Your task to perform on an android device: When is my next meeting? Image 0: 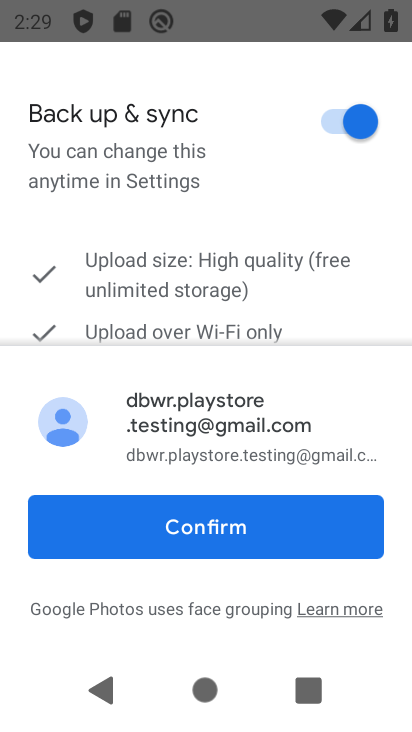
Step 0: press back button
Your task to perform on an android device: When is my next meeting? Image 1: 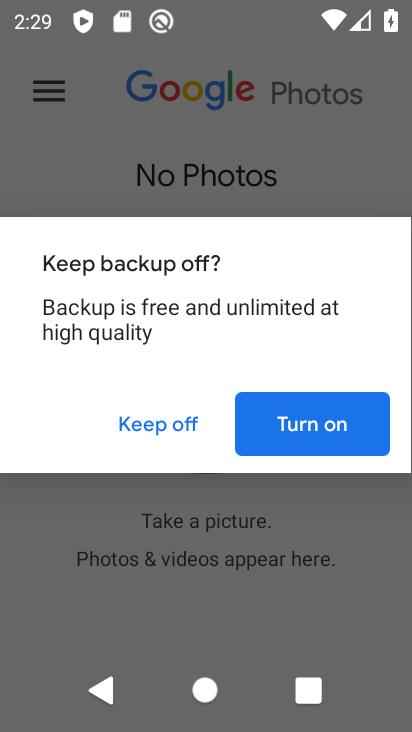
Step 1: press home button
Your task to perform on an android device: When is my next meeting? Image 2: 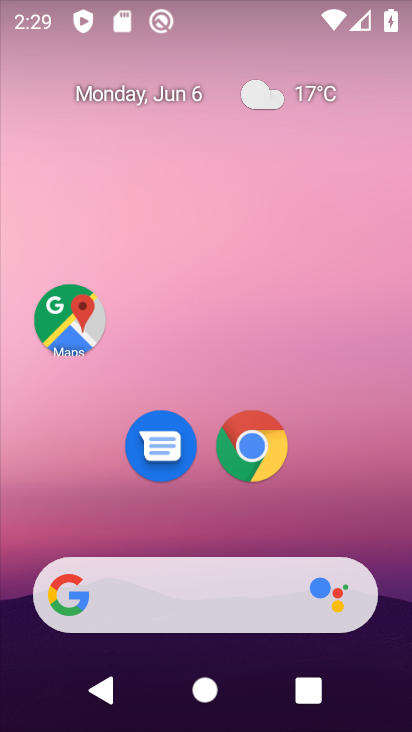
Step 2: drag from (168, 530) to (232, 69)
Your task to perform on an android device: When is my next meeting? Image 3: 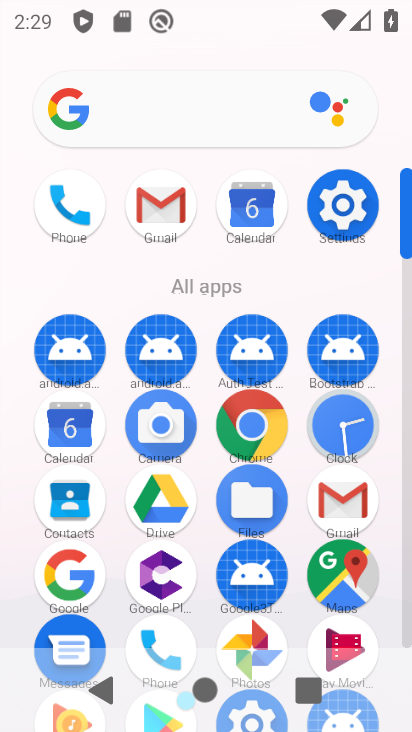
Step 3: click (252, 198)
Your task to perform on an android device: When is my next meeting? Image 4: 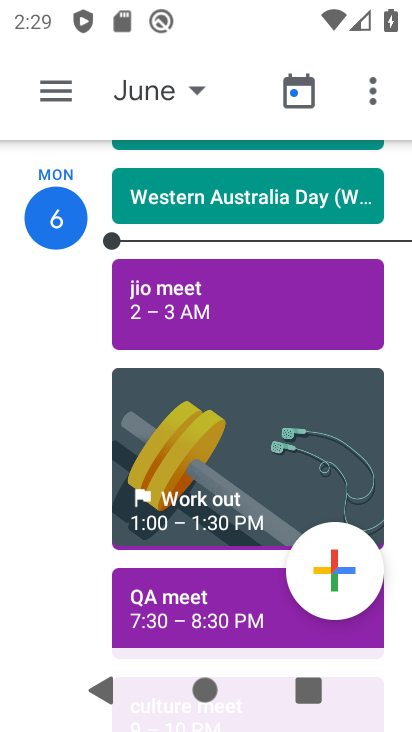
Step 4: drag from (176, 620) to (223, 268)
Your task to perform on an android device: When is my next meeting? Image 5: 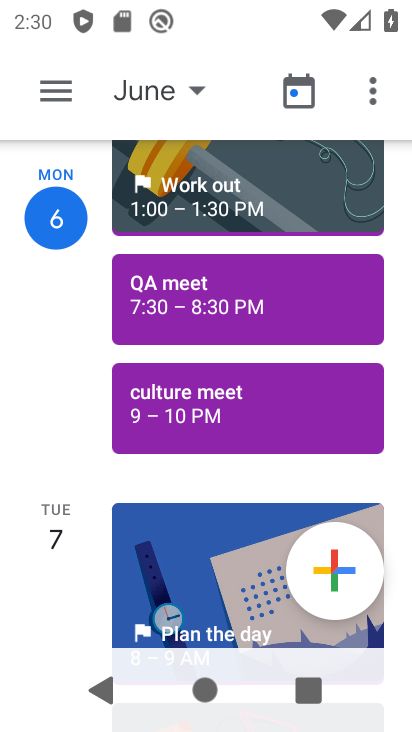
Step 5: drag from (165, 593) to (204, 620)
Your task to perform on an android device: When is my next meeting? Image 6: 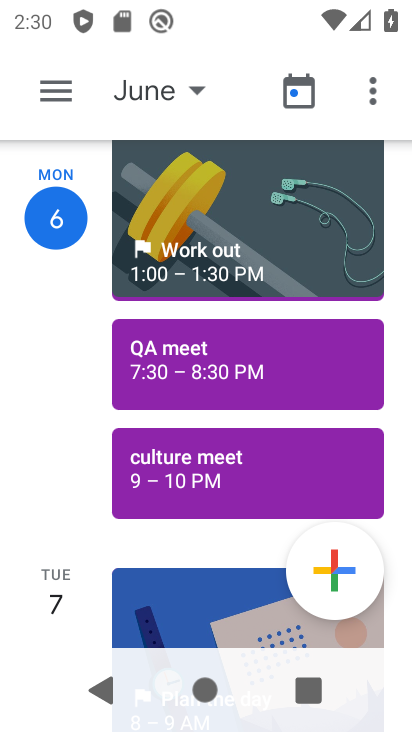
Step 6: drag from (192, 585) to (267, 154)
Your task to perform on an android device: When is my next meeting? Image 7: 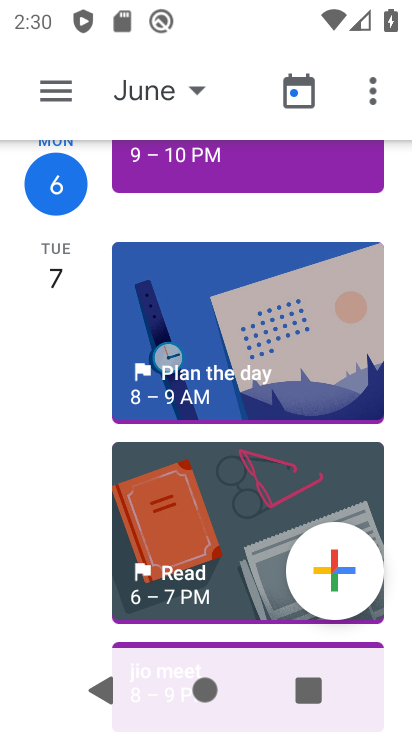
Step 7: drag from (217, 588) to (268, 133)
Your task to perform on an android device: When is my next meeting? Image 8: 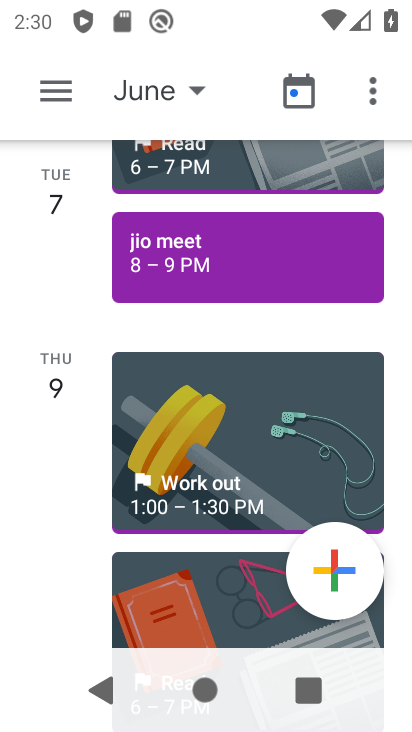
Step 8: drag from (214, 514) to (237, 573)
Your task to perform on an android device: When is my next meeting? Image 9: 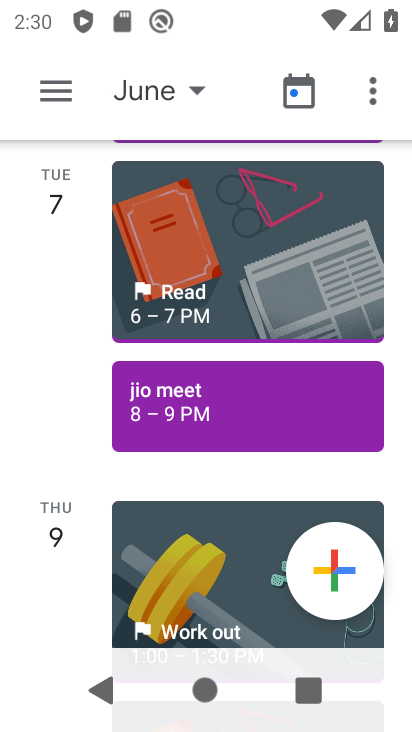
Step 9: click (191, 410)
Your task to perform on an android device: When is my next meeting? Image 10: 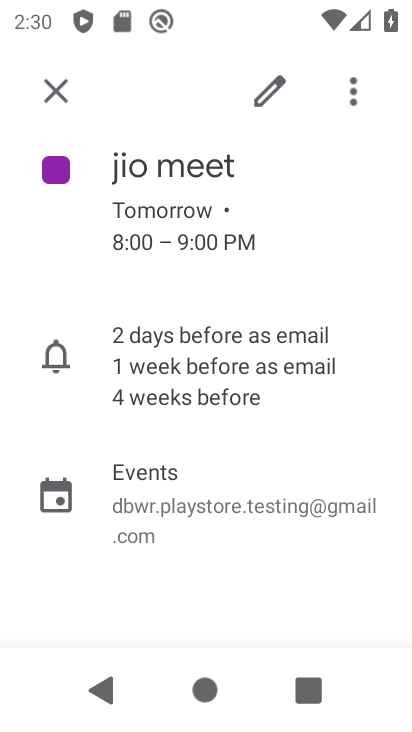
Step 10: task complete